Your task to perform on an android device: Add "razer blackwidow" to the cart on amazon Image 0: 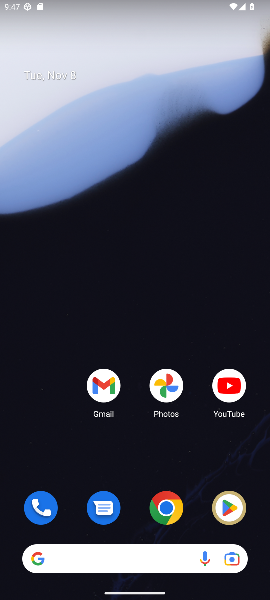
Step 0: click (159, 505)
Your task to perform on an android device: Add "razer blackwidow" to the cart on amazon Image 1: 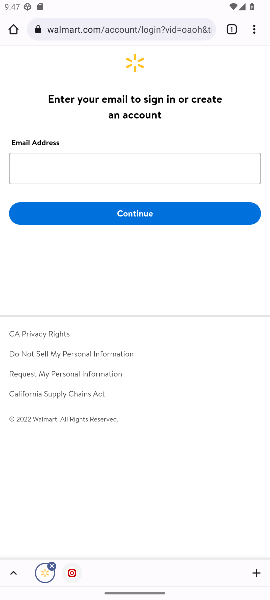
Step 1: click (48, 22)
Your task to perform on an android device: Add "razer blackwidow" to the cart on amazon Image 2: 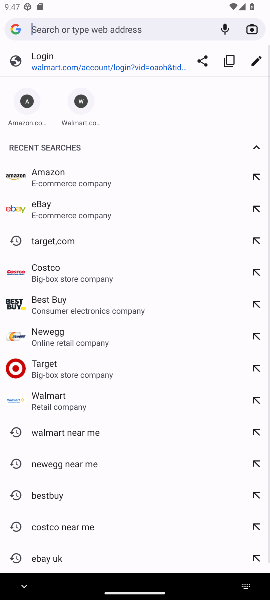
Step 2: click (40, 173)
Your task to perform on an android device: Add "razer blackwidow" to the cart on amazon Image 3: 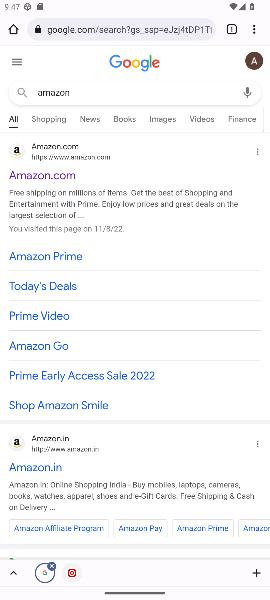
Step 3: click (32, 171)
Your task to perform on an android device: Add "razer blackwidow" to the cart on amazon Image 4: 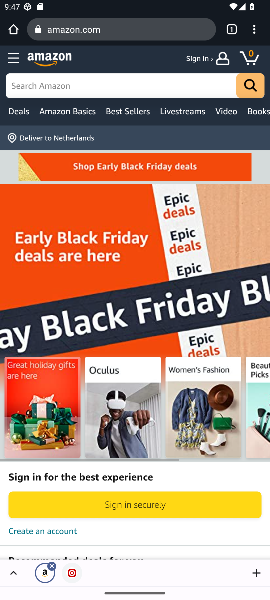
Step 4: click (90, 81)
Your task to perform on an android device: Add "razer blackwidow" to the cart on amazon Image 5: 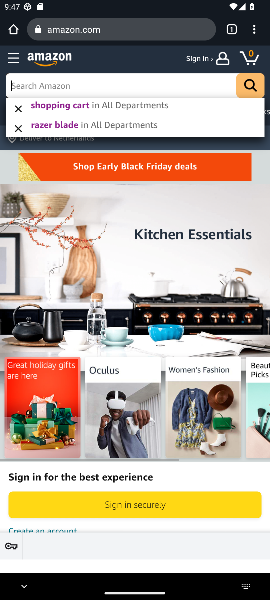
Step 5: type "razer blackwidow"
Your task to perform on an android device: Add "razer blackwidow" to the cart on amazon Image 6: 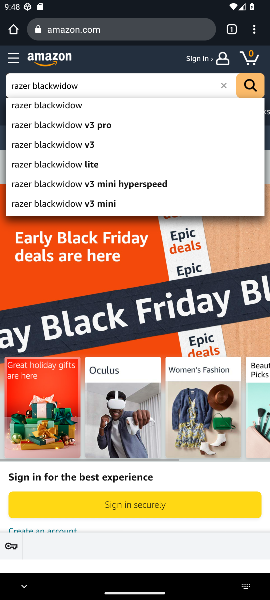
Step 6: click (52, 105)
Your task to perform on an android device: Add "razer blackwidow" to the cart on amazon Image 7: 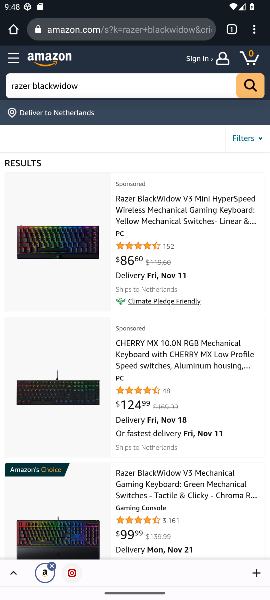
Step 7: click (145, 205)
Your task to perform on an android device: Add "razer blackwidow" to the cart on amazon Image 8: 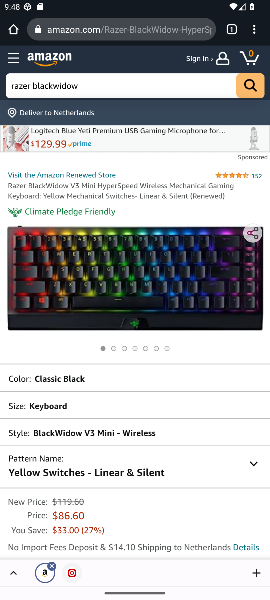
Step 8: drag from (64, 464) to (106, 135)
Your task to perform on an android device: Add "razer blackwidow" to the cart on amazon Image 9: 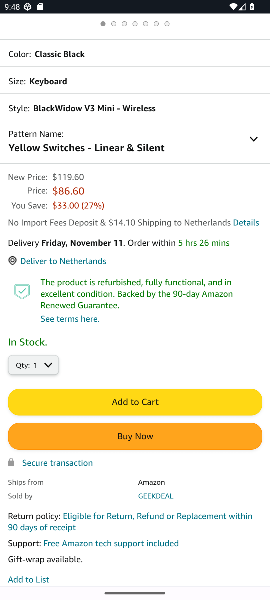
Step 9: click (135, 405)
Your task to perform on an android device: Add "razer blackwidow" to the cart on amazon Image 10: 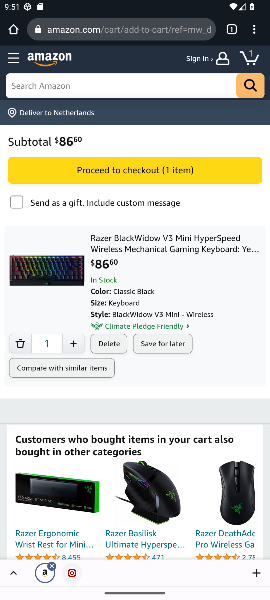
Step 10: task complete